Your task to perform on an android device: Open calendar and show me the third week of next month Image 0: 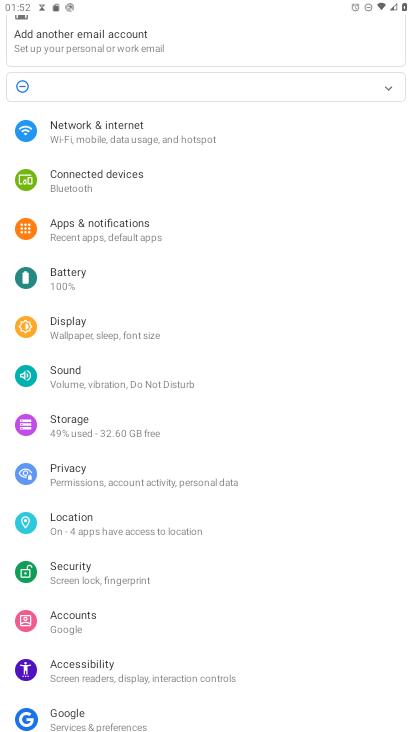
Step 0: press home button
Your task to perform on an android device: Open calendar and show me the third week of next month Image 1: 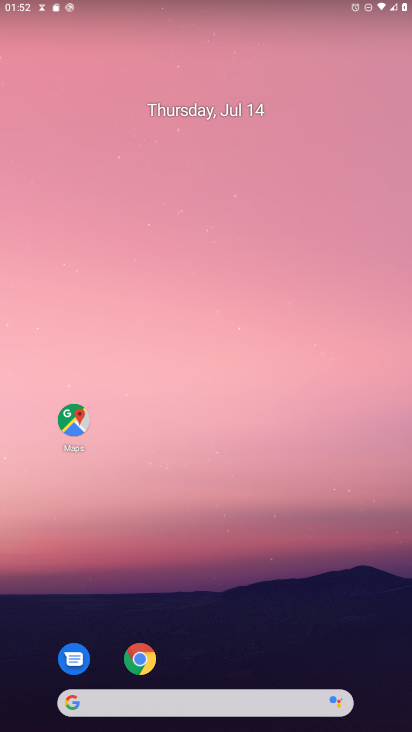
Step 1: drag from (59, 702) to (306, 80)
Your task to perform on an android device: Open calendar and show me the third week of next month Image 2: 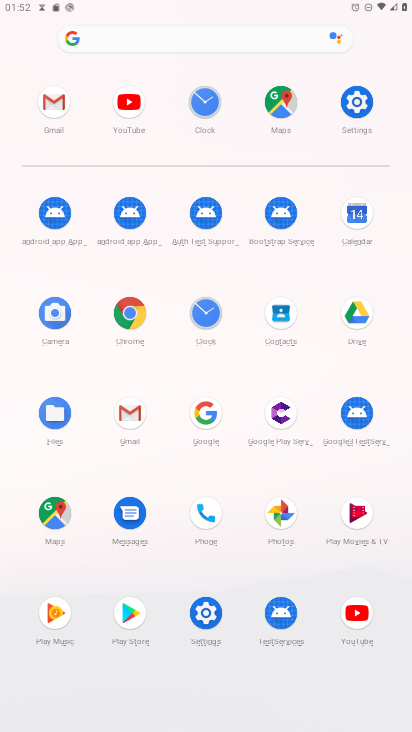
Step 2: click (342, 210)
Your task to perform on an android device: Open calendar and show me the third week of next month Image 3: 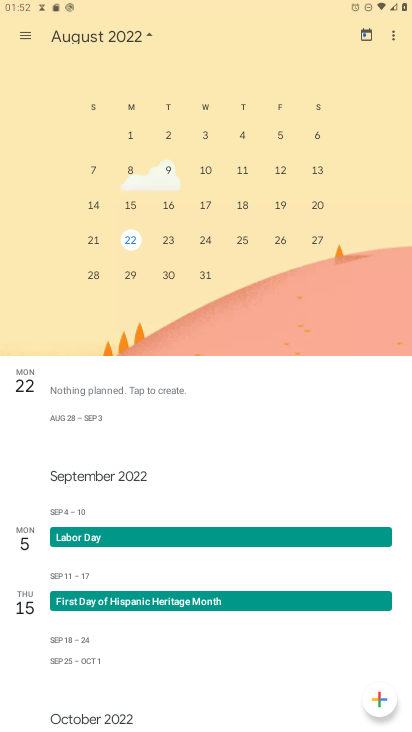
Step 3: click (125, 203)
Your task to perform on an android device: Open calendar and show me the third week of next month Image 4: 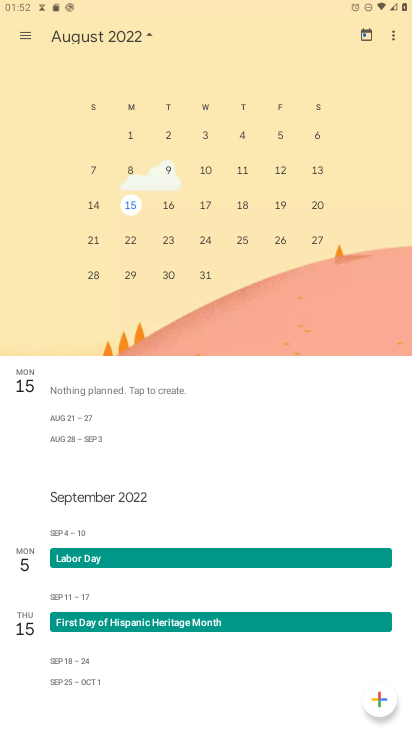
Step 4: task complete